Your task to perform on an android device: turn off data saver in the chrome app Image 0: 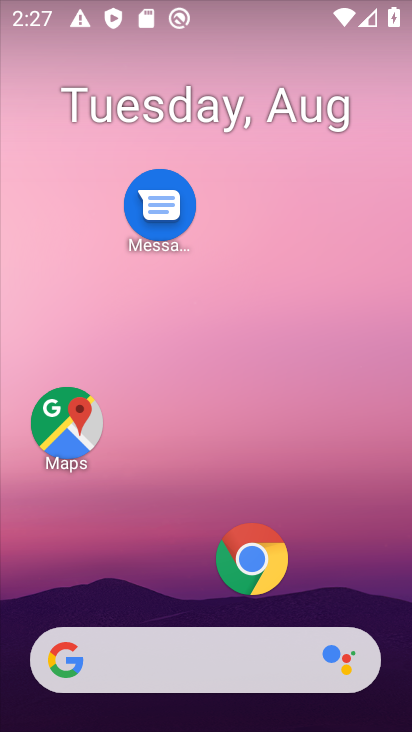
Step 0: click (253, 560)
Your task to perform on an android device: turn off data saver in the chrome app Image 1: 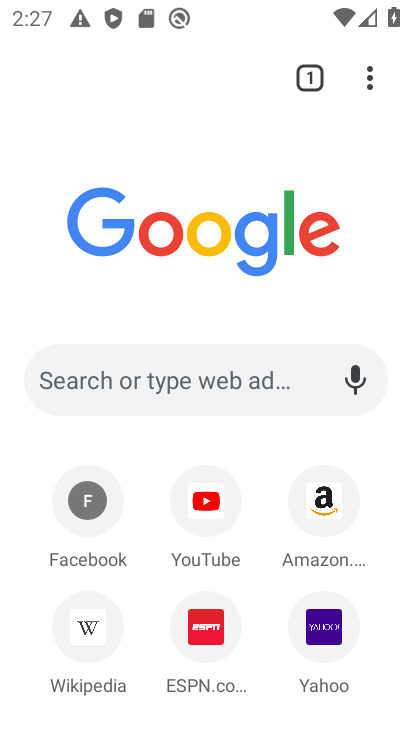
Step 1: click (356, 81)
Your task to perform on an android device: turn off data saver in the chrome app Image 2: 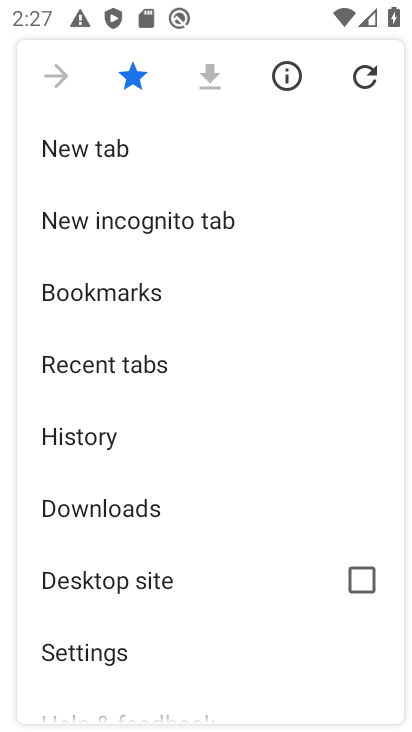
Step 2: drag from (221, 489) to (215, 227)
Your task to perform on an android device: turn off data saver in the chrome app Image 3: 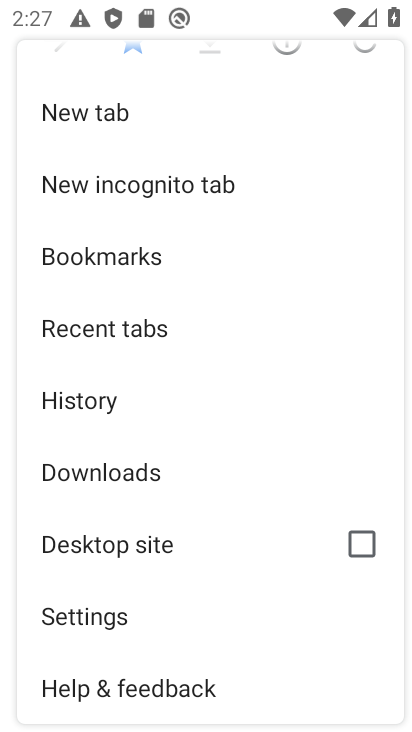
Step 3: click (72, 620)
Your task to perform on an android device: turn off data saver in the chrome app Image 4: 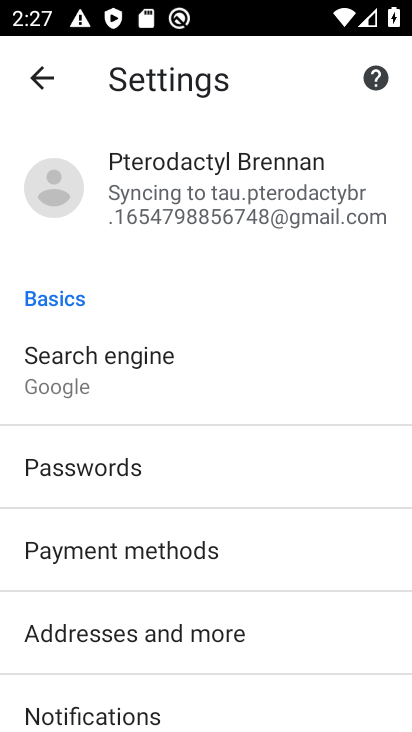
Step 4: drag from (231, 661) to (230, 318)
Your task to perform on an android device: turn off data saver in the chrome app Image 5: 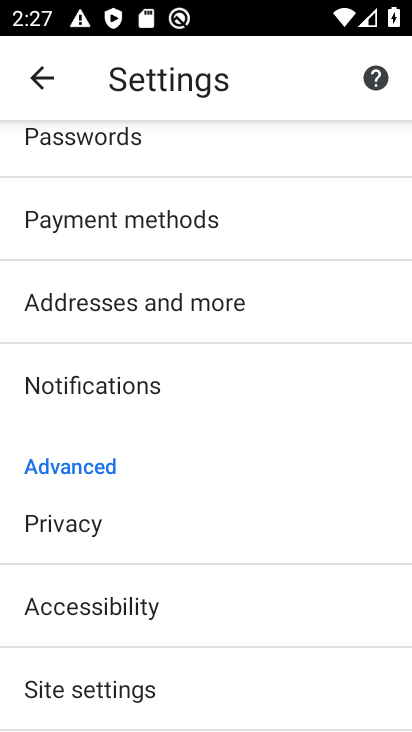
Step 5: drag from (220, 643) to (220, 321)
Your task to perform on an android device: turn off data saver in the chrome app Image 6: 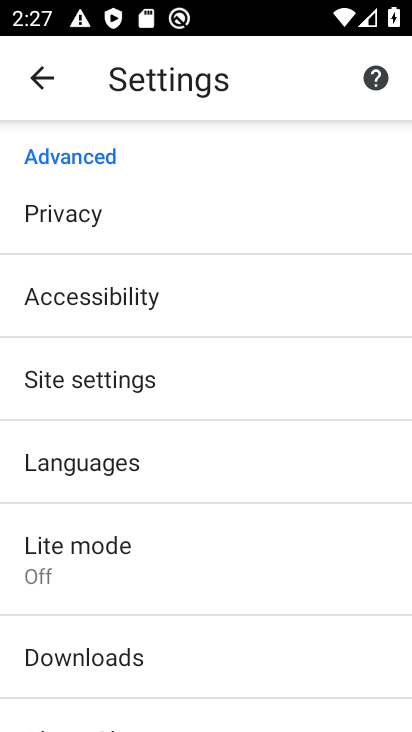
Step 6: click (74, 538)
Your task to perform on an android device: turn off data saver in the chrome app Image 7: 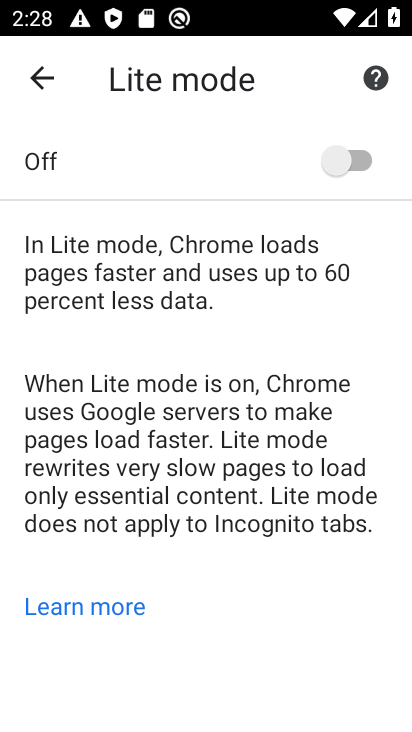
Step 7: task complete